Your task to perform on an android device: check out phone information Image 0: 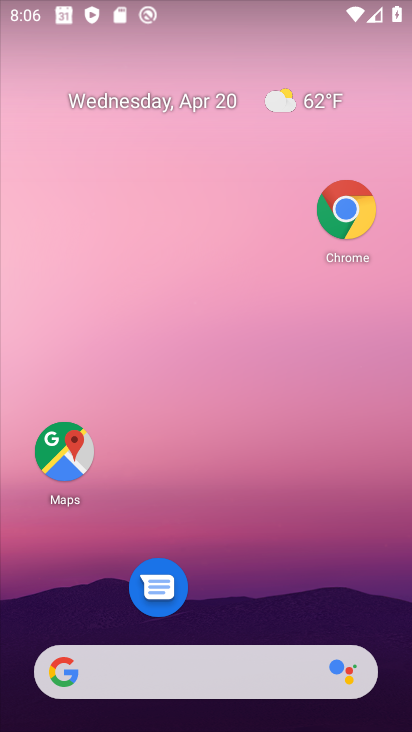
Step 0: drag from (320, 627) to (252, 19)
Your task to perform on an android device: check out phone information Image 1: 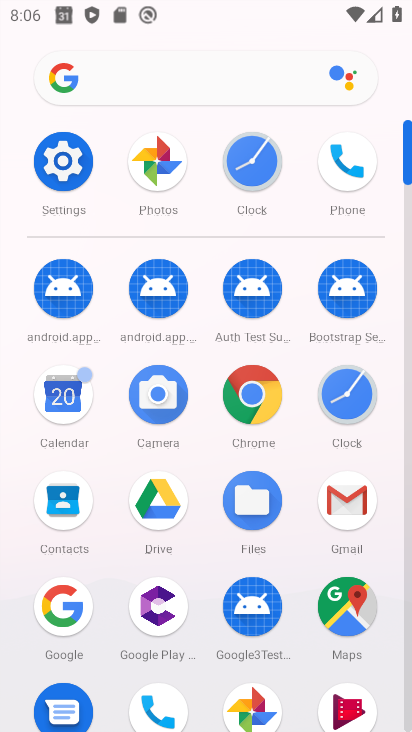
Step 1: click (58, 182)
Your task to perform on an android device: check out phone information Image 2: 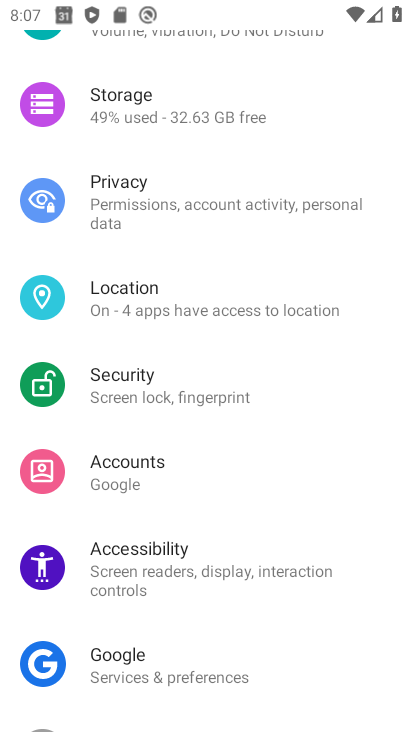
Step 2: drag from (207, 626) to (334, 217)
Your task to perform on an android device: check out phone information Image 3: 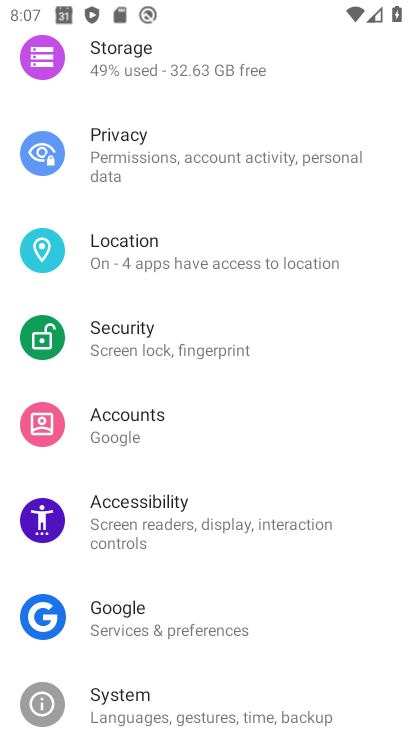
Step 3: drag from (176, 602) to (239, 322)
Your task to perform on an android device: check out phone information Image 4: 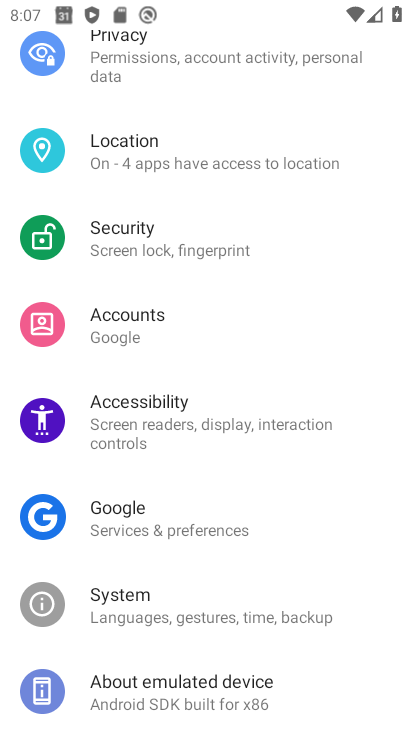
Step 4: drag from (182, 683) to (266, 247)
Your task to perform on an android device: check out phone information Image 5: 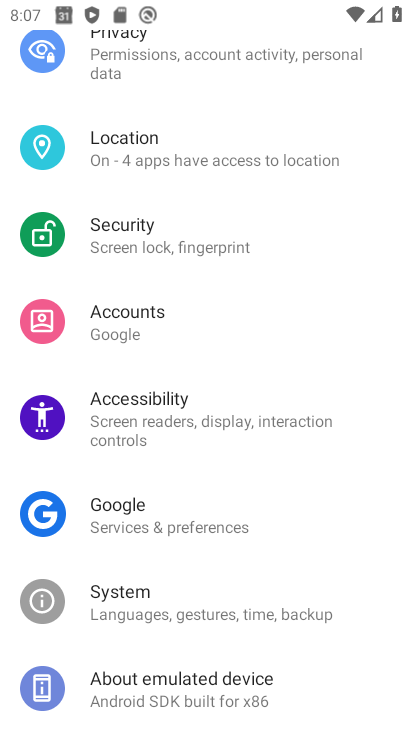
Step 5: click (154, 672)
Your task to perform on an android device: check out phone information Image 6: 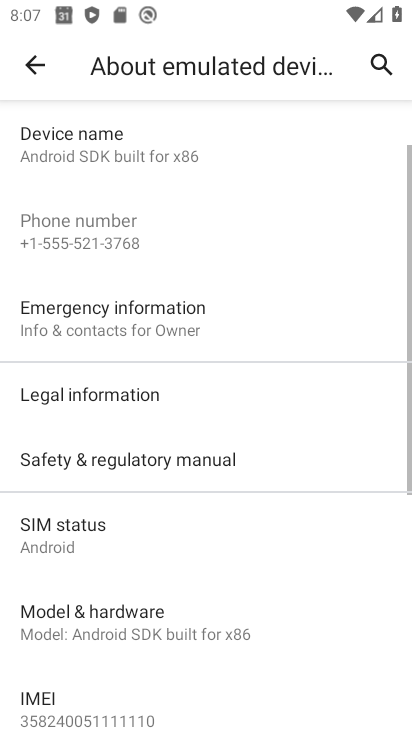
Step 6: task complete